Your task to perform on an android device: What is the news today? Image 0: 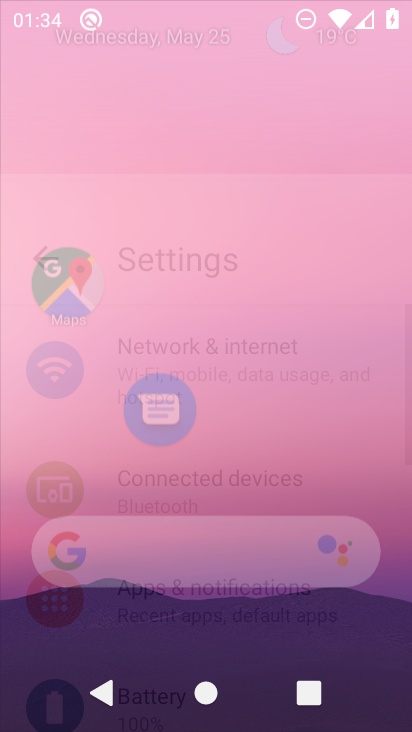
Step 0: click (266, 3)
Your task to perform on an android device: What is the news today? Image 1: 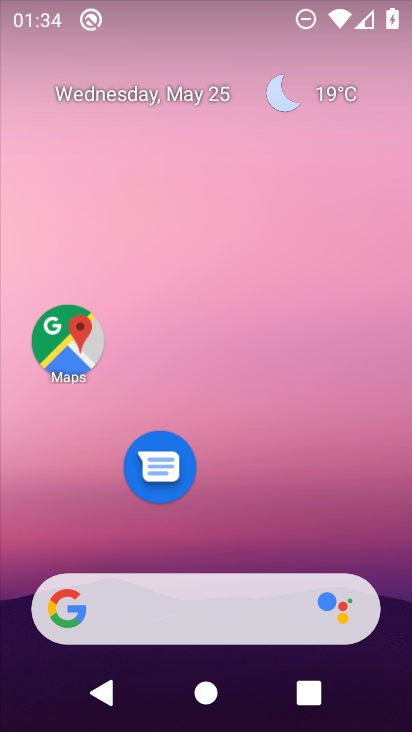
Step 1: drag from (242, 523) to (378, 0)
Your task to perform on an android device: What is the news today? Image 2: 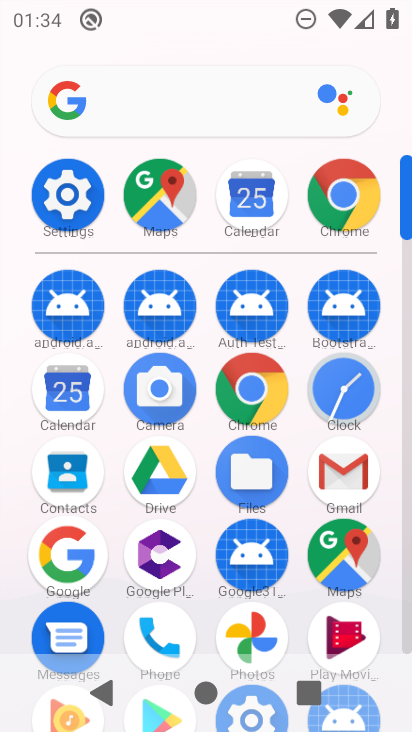
Step 2: click (214, 104)
Your task to perform on an android device: What is the news today? Image 3: 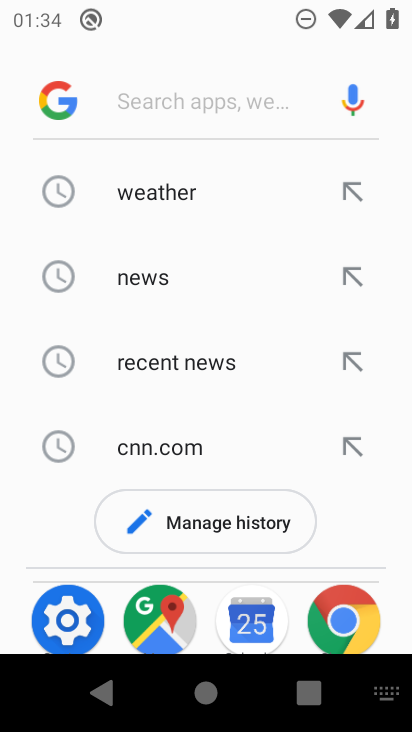
Step 3: type "news today"
Your task to perform on an android device: What is the news today? Image 4: 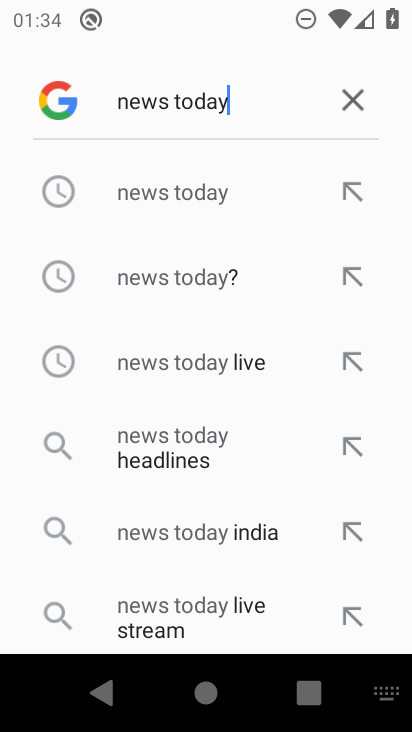
Step 4: click (138, 202)
Your task to perform on an android device: What is the news today? Image 5: 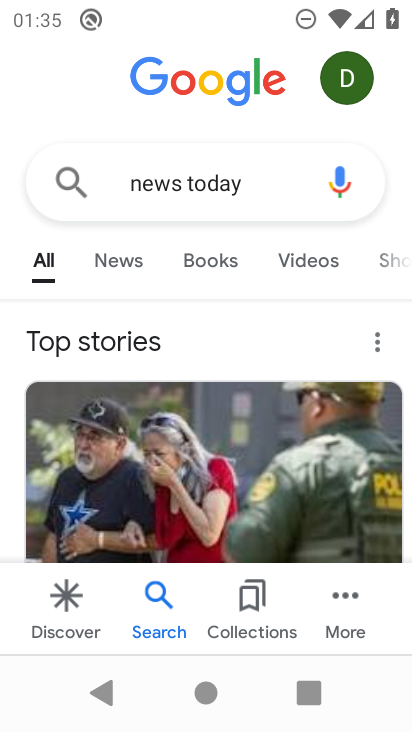
Step 5: task complete